Your task to perform on an android device: Open CNN.com Image 0: 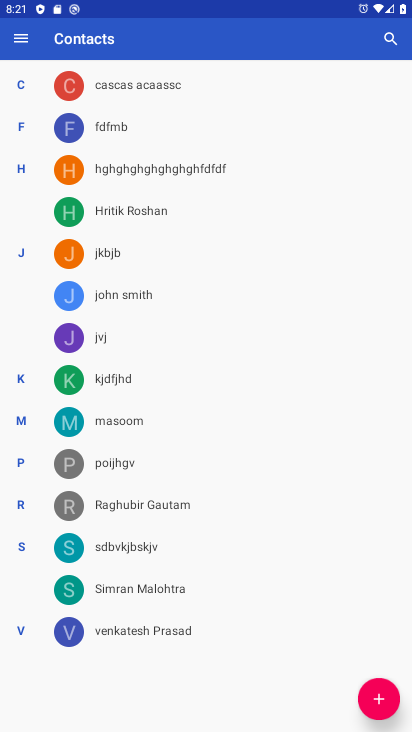
Step 0: press home button
Your task to perform on an android device: Open CNN.com Image 1: 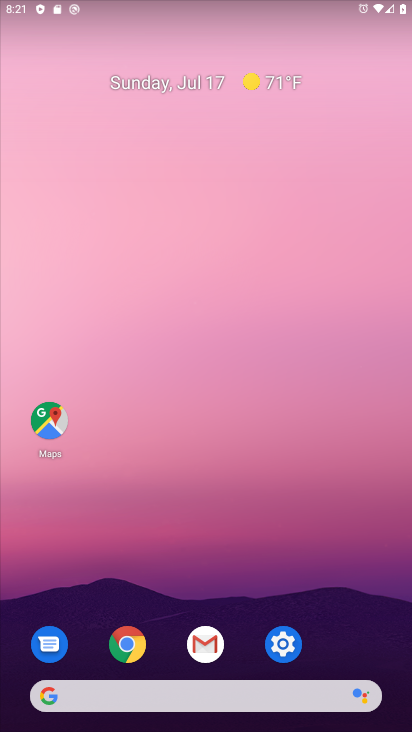
Step 1: click (145, 637)
Your task to perform on an android device: Open CNN.com Image 2: 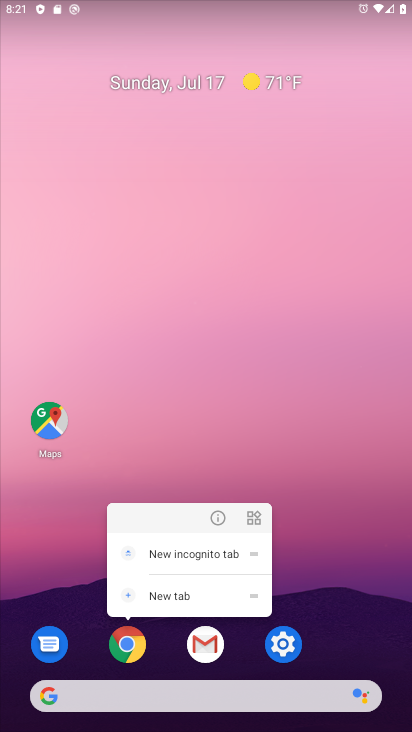
Step 2: click (125, 644)
Your task to perform on an android device: Open CNN.com Image 3: 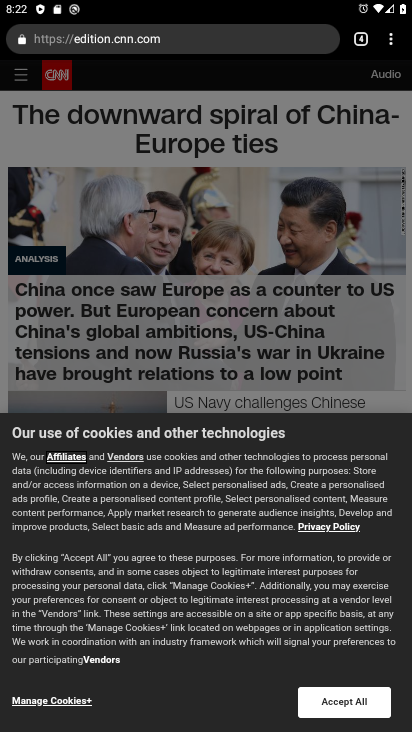
Step 3: click (135, 42)
Your task to perform on an android device: Open CNN.com Image 4: 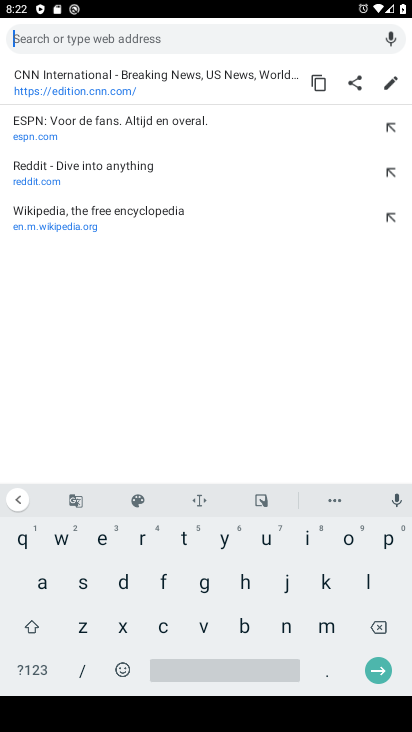
Step 4: click (72, 86)
Your task to perform on an android device: Open CNN.com Image 5: 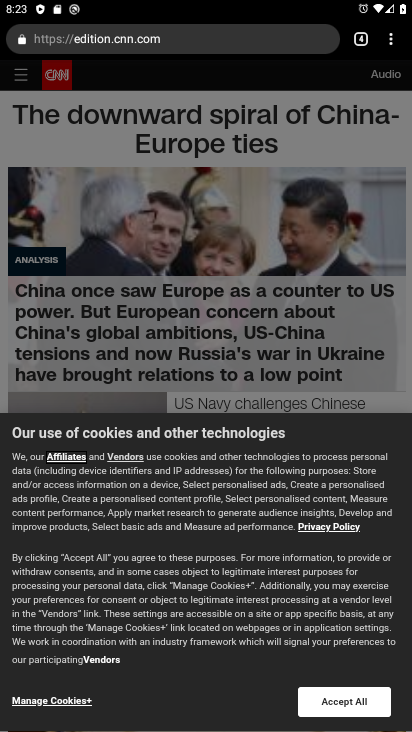
Step 5: task complete